Your task to perform on an android device: Find coffee shops on Maps Image 0: 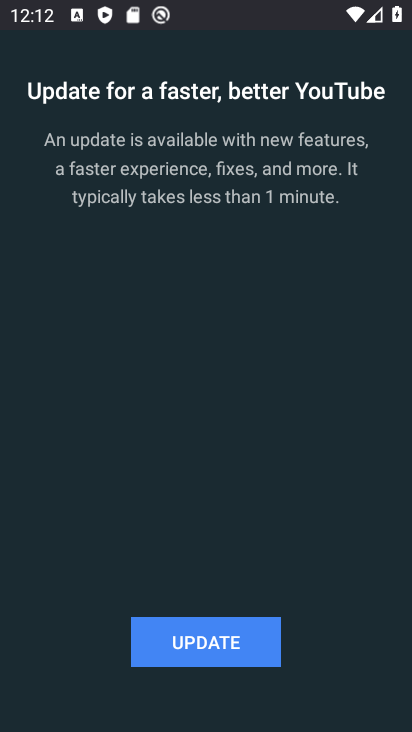
Step 0: press home button
Your task to perform on an android device: Find coffee shops on Maps Image 1: 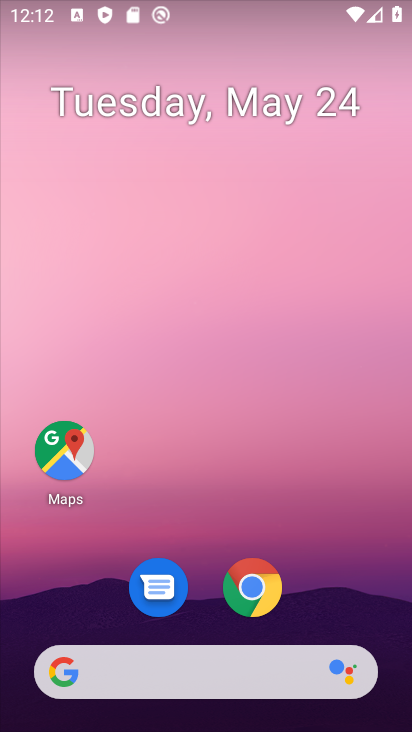
Step 1: click (76, 444)
Your task to perform on an android device: Find coffee shops on Maps Image 2: 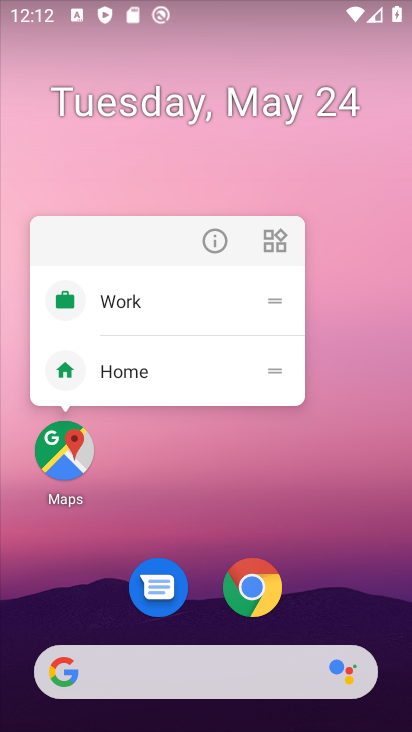
Step 2: click (52, 457)
Your task to perform on an android device: Find coffee shops on Maps Image 3: 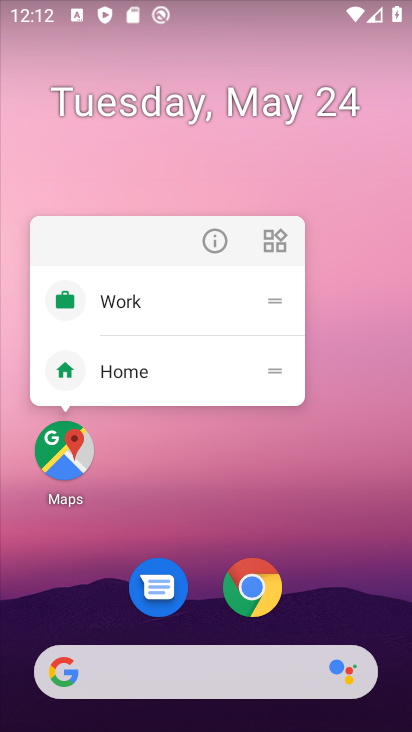
Step 3: click (71, 463)
Your task to perform on an android device: Find coffee shops on Maps Image 4: 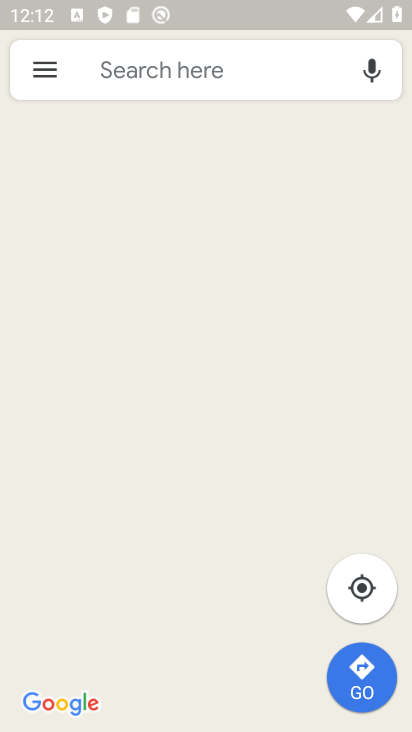
Step 4: click (215, 83)
Your task to perform on an android device: Find coffee shops on Maps Image 5: 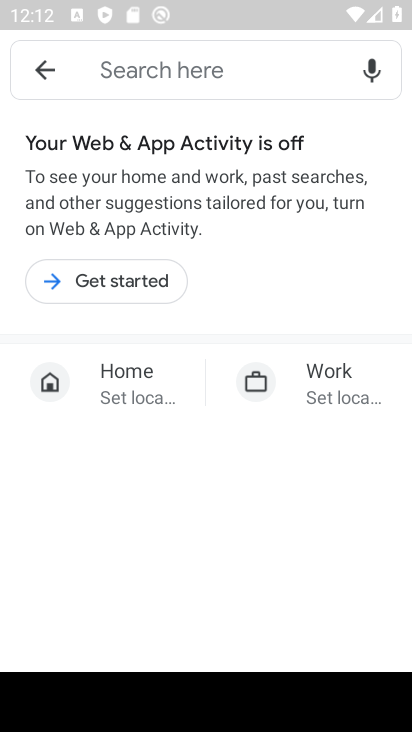
Step 5: click (42, 75)
Your task to perform on an android device: Find coffee shops on Maps Image 6: 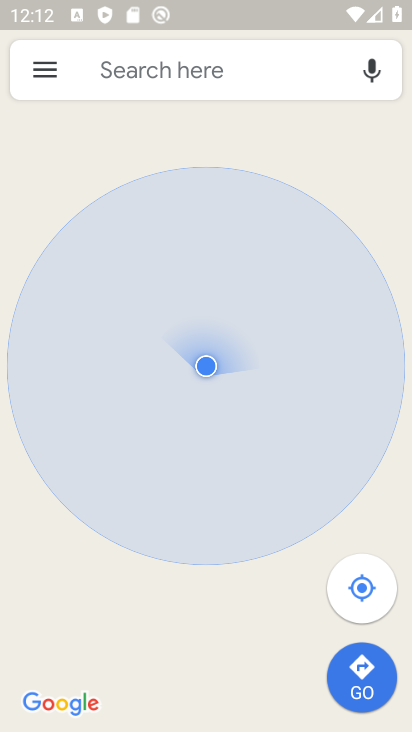
Step 6: click (131, 67)
Your task to perform on an android device: Find coffee shops on Maps Image 7: 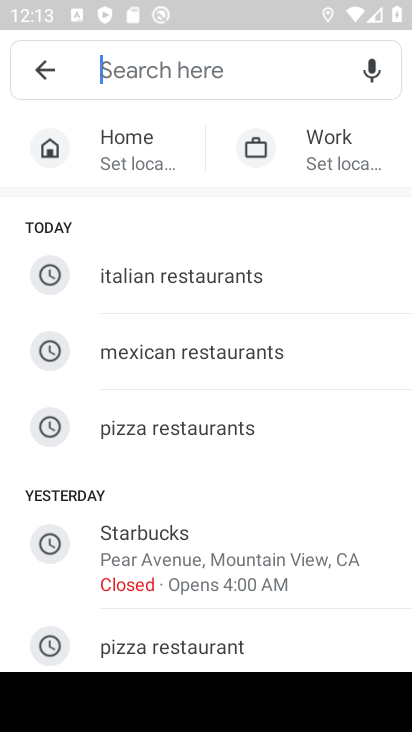
Step 7: type "coffee shop"
Your task to perform on an android device: Find coffee shops on Maps Image 8: 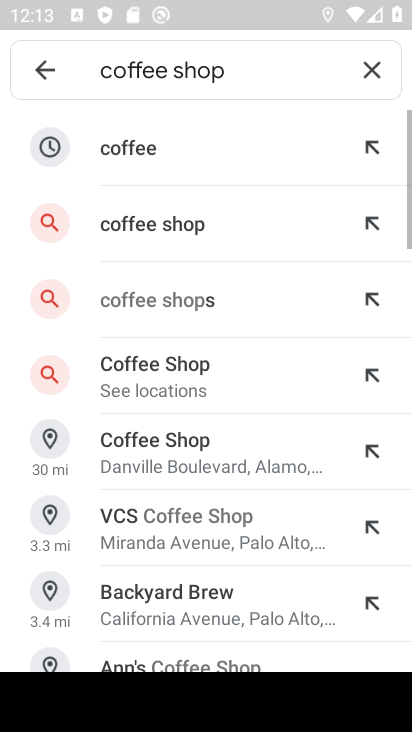
Step 8: click (197, 219)
Your task to perform on an android device: Find coffee shops on Maps Image 9: 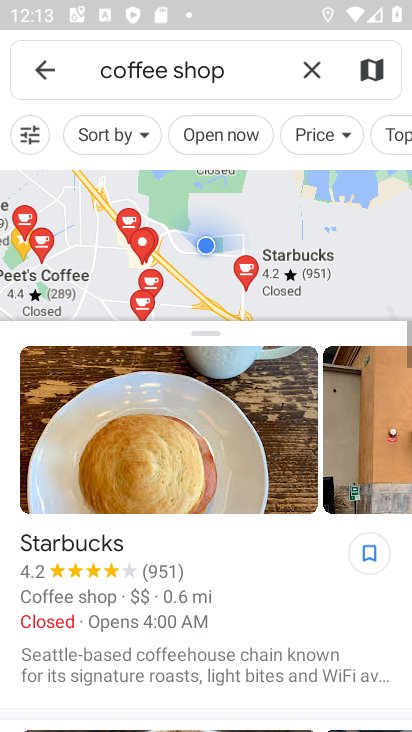
Step 9: task complete